Your task to perform on an android device: open chrome and create a bookmark for the current page Image 0: 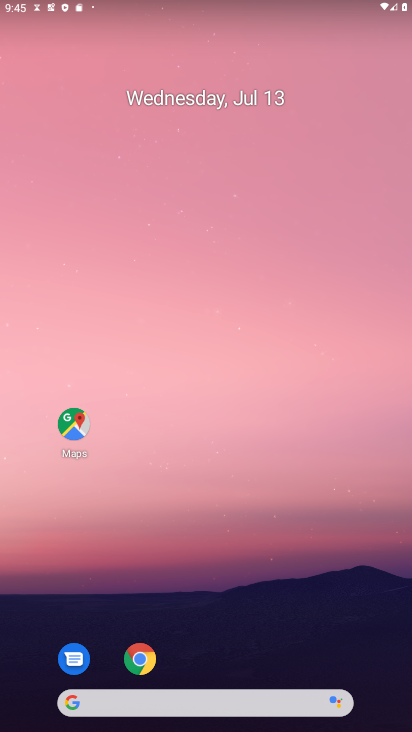
Step 0: click (127, 666)
Your task to perform on an android device: open chrome and create a bookmark for the current page Image 1: 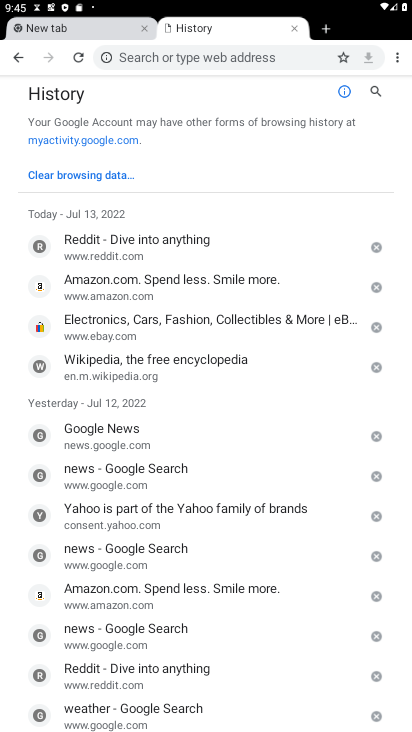
Step 1: click (343, 57)
Your task to perform on an android device: open chrome and create a bookmark for the current page Image 2: 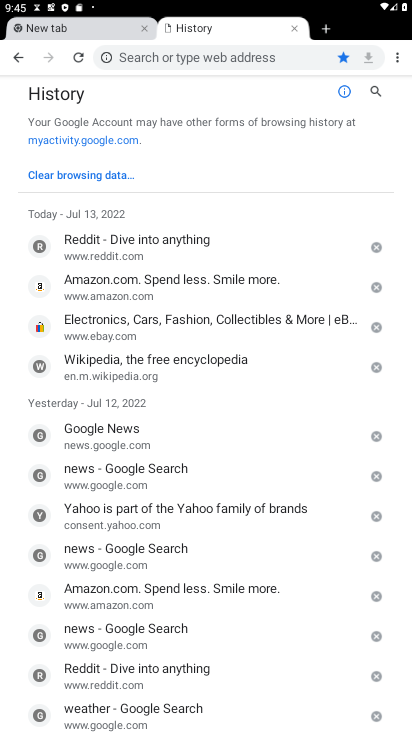
Step 2: task complete